Your task to perform on an android device: Open Reddit.com Image 0: 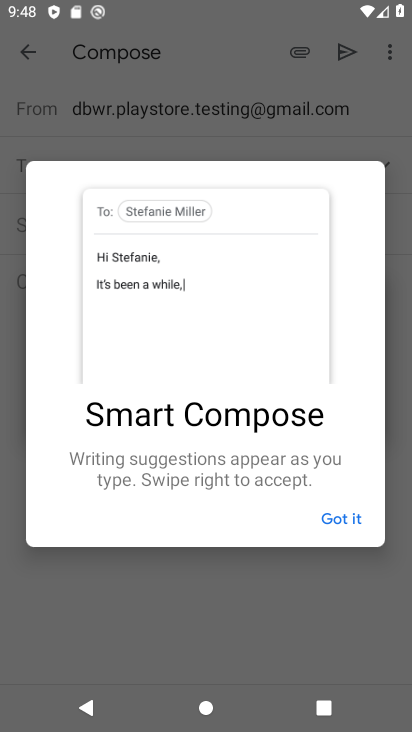
Step 0: press home button
Your task to perform on an android device: Open Reddit.com Image 1: 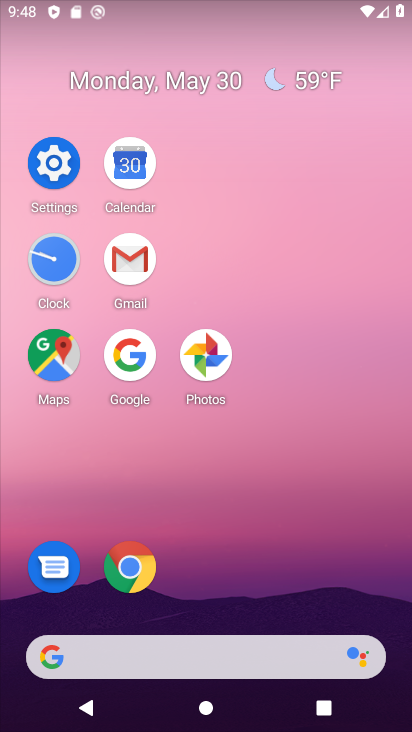
Step 1: click (145, 566)
Your task to perform on an android device: Open Reddit.com Image 2: 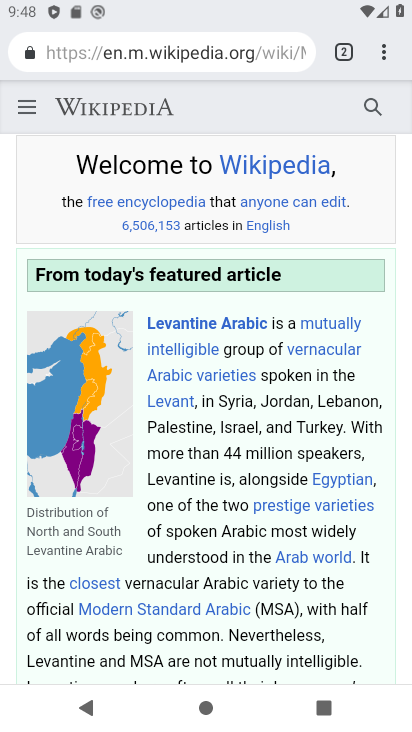
Step 2: click (337, 35)
Your task to perform on an android device: Open Reddit.com Image 3: 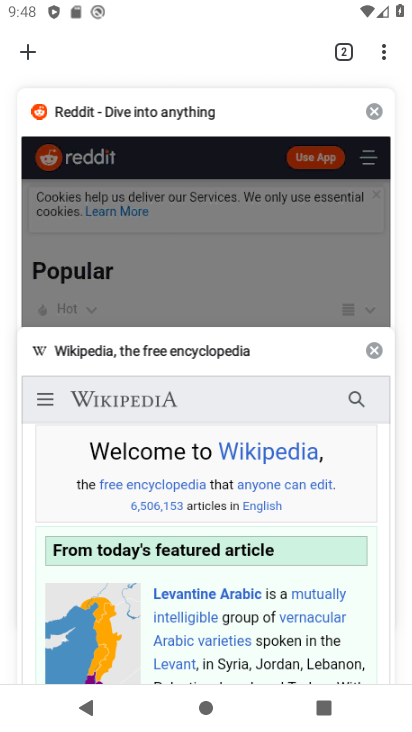
Step 3: click (88, 139)
Your task to perform on an android device: Open Reddit.com Image 4: 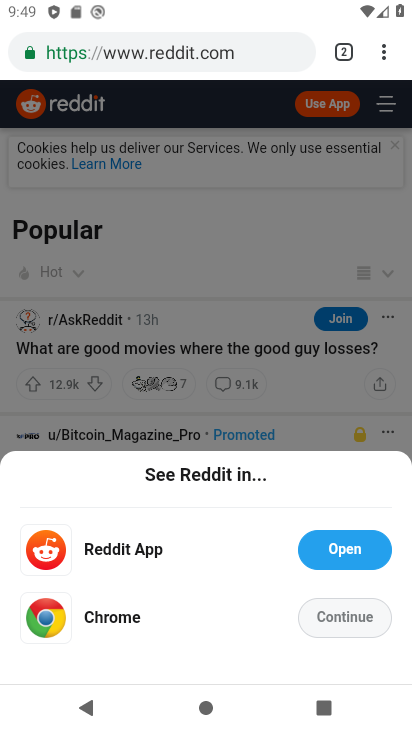
Step 4: task complete